Your task to perform on an android device: create a new album in the google photos Image 0: 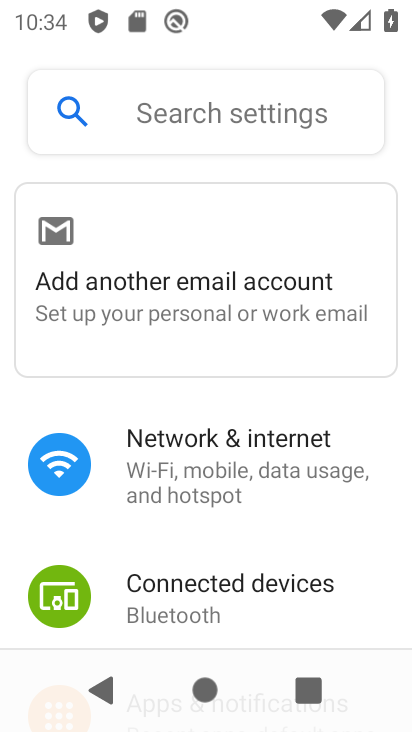
Step 0: press home button
Your task to perform on an android device: create a new album in the google photos Image 1: 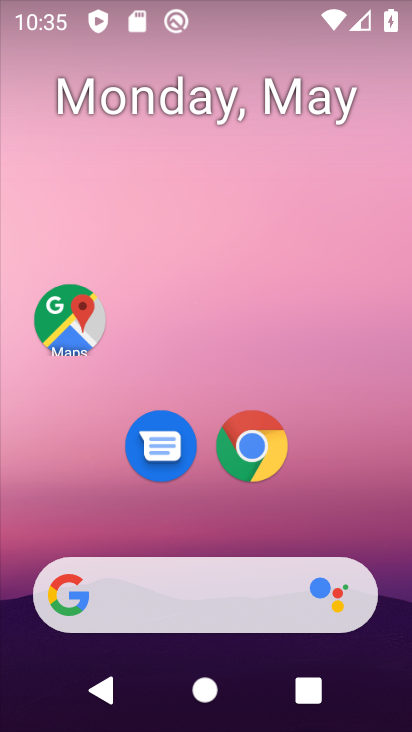
Step 1: drag from (394, 465) to (409, 203)
Your task to perform on an android device: create a new album in the google photos Image 2: 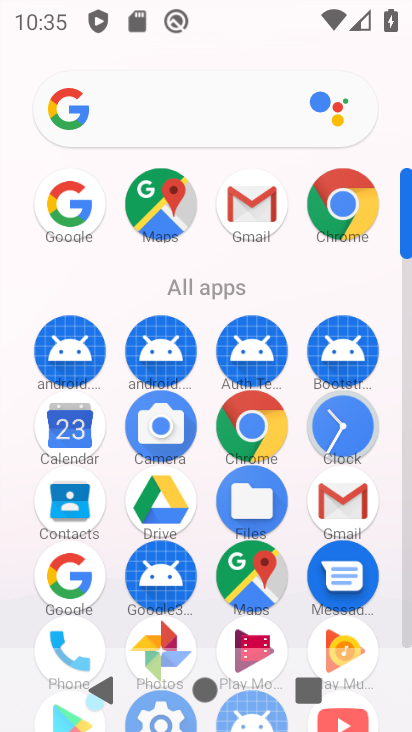
Step 2: drag from (401, 545) to (393, 106)
Your task to perform on an android device: create a new album in the google photos Image 3: 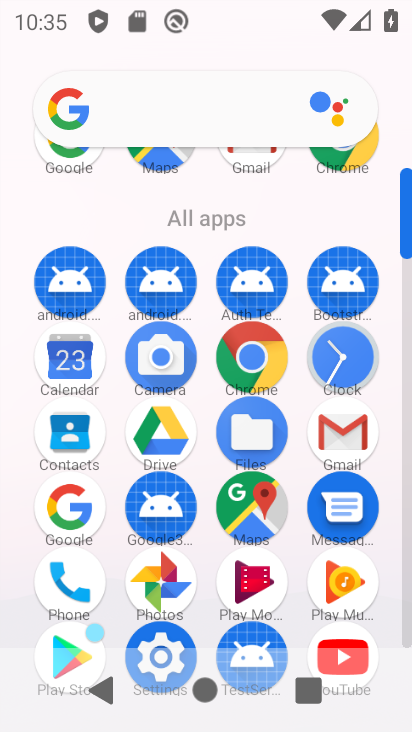
Step 3: click (156, 567)
Your task to perform on an android device: create a new album in the google photos Image 4: 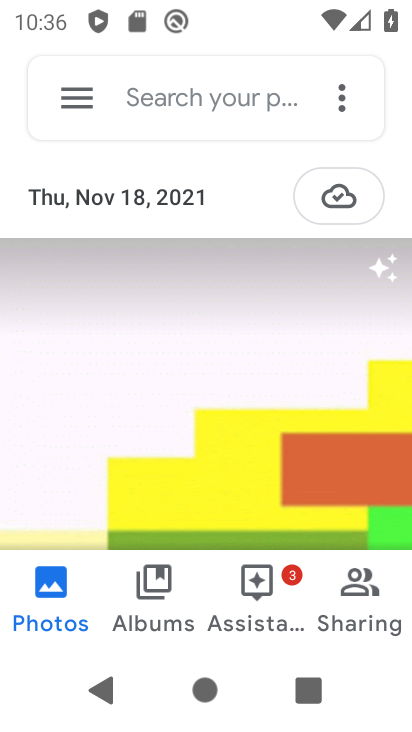
Step 4: click (165, 594)
Your task to perform on an android device: create a new album in the google photos Image 5: 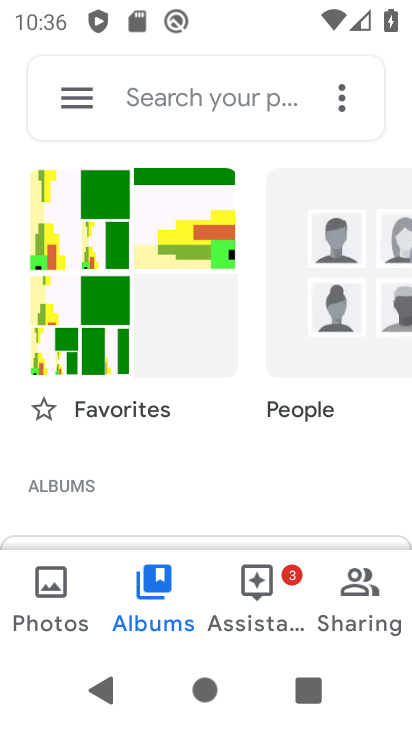
Step 5: drag from (177, 492) to (173, 29)
Your task to perform on an android device: create a new album in the google photos Image 6: 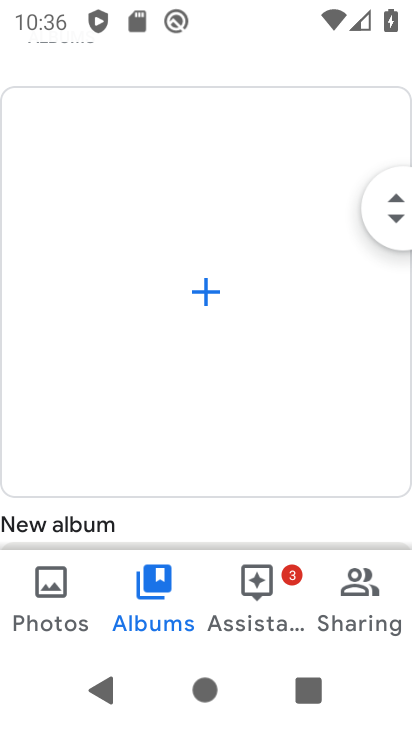
Step 6: click (205, 294)
Your task to perform on an android device: create a new album in the google photos Image 7: 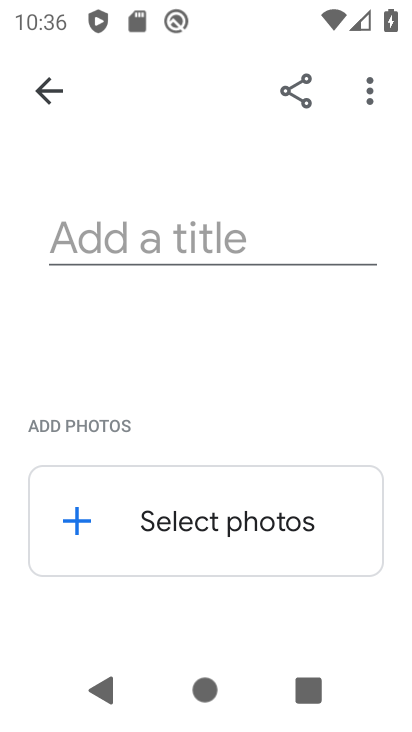
Step 7: click (181, 229)
Your task to perform on an android device: create a new album in the google photos Image 8: 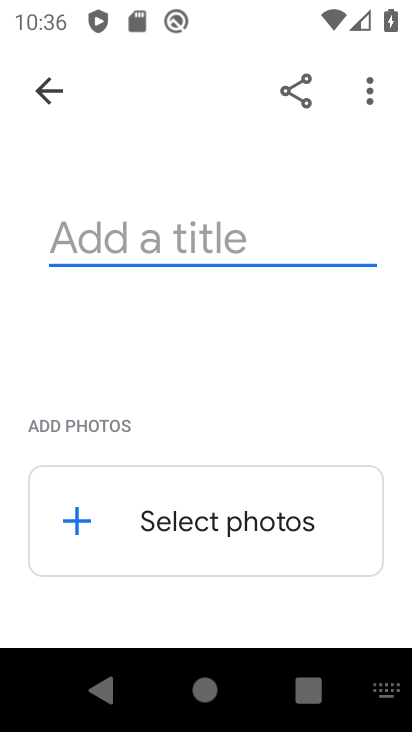
Step 8: click (275, 529)
Your task to perform on an android device: create a new album in the google photos Image 9: 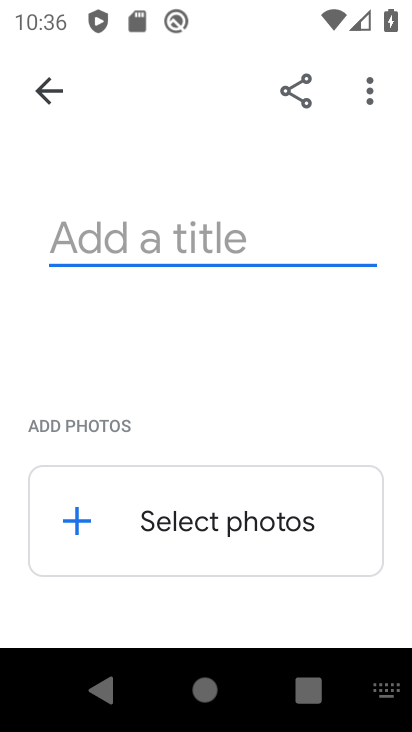
Step 9: type "yygf"
Your task to perform on an android device: create a new album in the google photos Image 10: 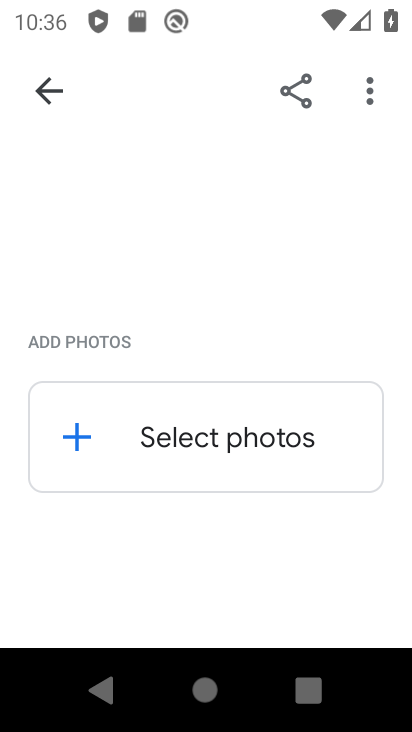
Step 10: click (275, 528)
Your task to perform on an android device: create a new album in the google photos Image 11: 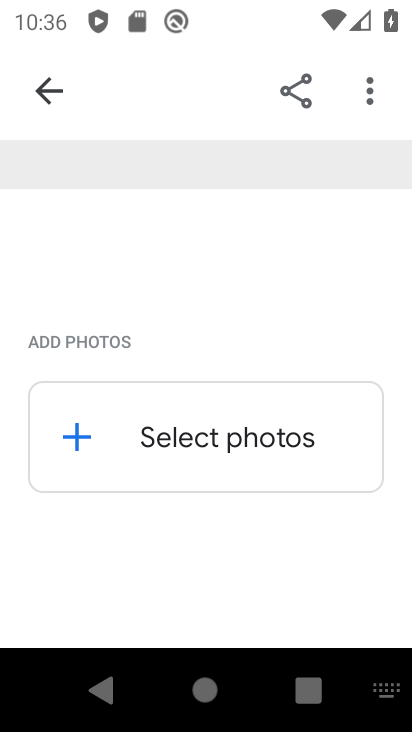
Step 11: click (259, 493)
Your task to perform on an android device: create a new album in the google photos Image 12: 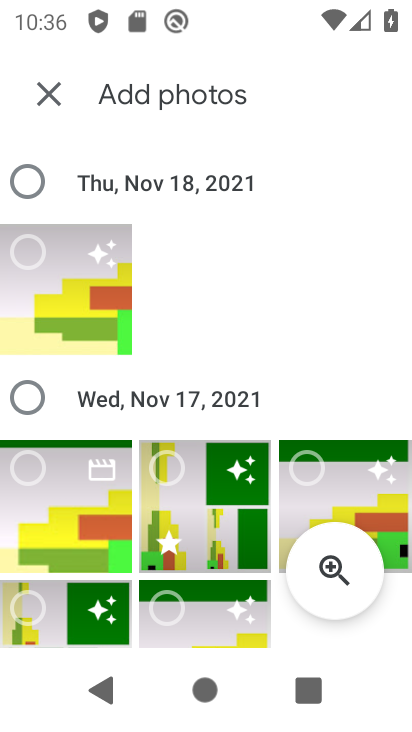
Step 12: click (253, 467)
Your task to perform on an android device: create a new album in the google photos Image 13: 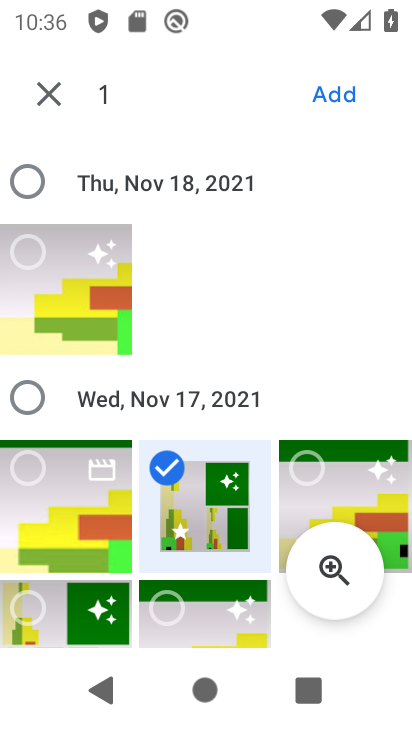
Step 13: click (253, 467)
Your task to perform on an android device: create a new album in the google photos Image 14: 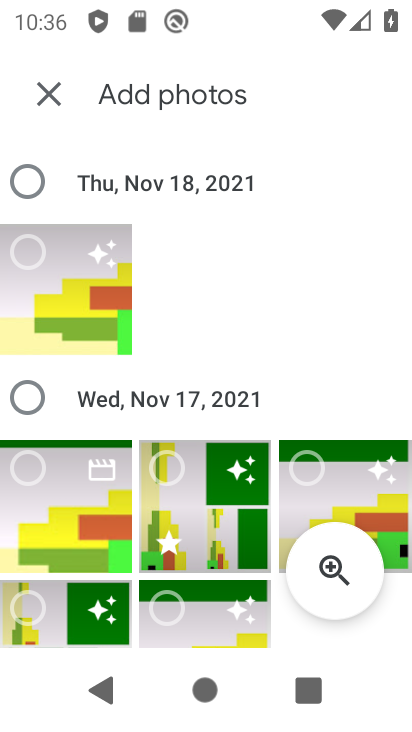
Step 14: click (188, 479)
Your task to perform on an android device: create a new album in the google photos Image 15: 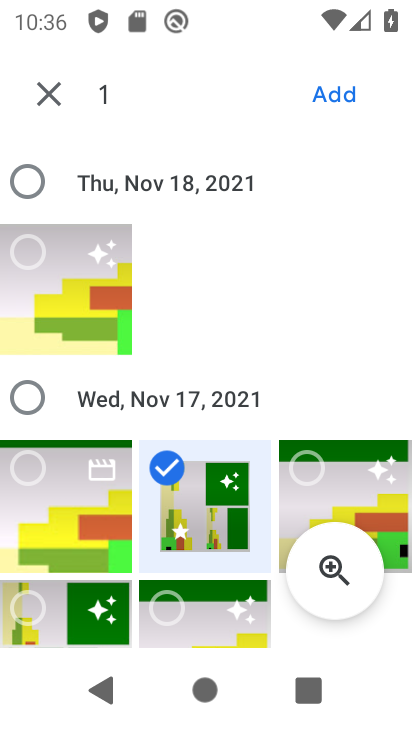
Step 15: click (58, 269)
Your task to perform on an android device: create a new album in the google photos Image 16: 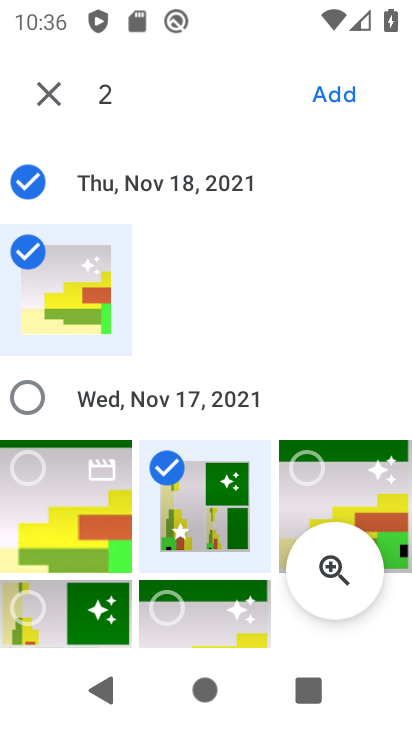
Step 16: click (47, 257)
Your task to perform on an android device: create a new album in the google photos Image 17: 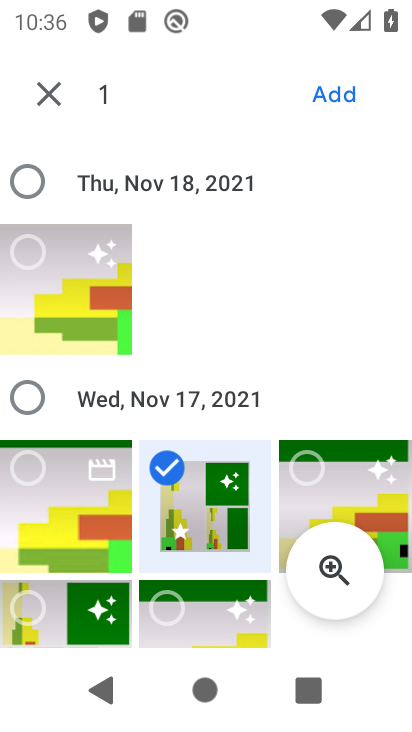
Step 17: click (37, 466)
Your task to perform on an android device: create a new album in the google photos Image 18: 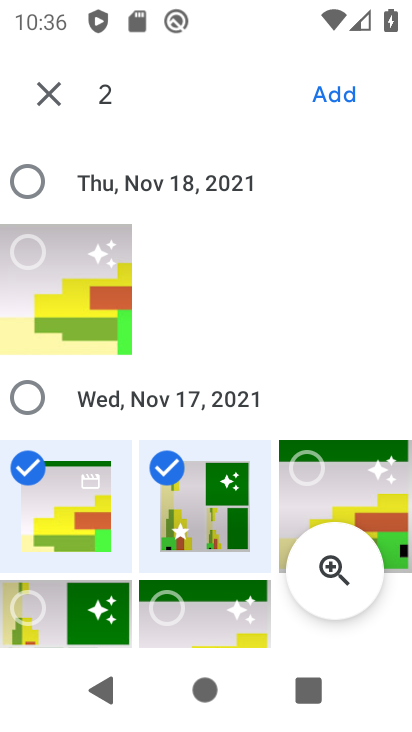
Step 18: click (323, 104)
Your task to perform on an android device: create a new album in the google photos Image 19: 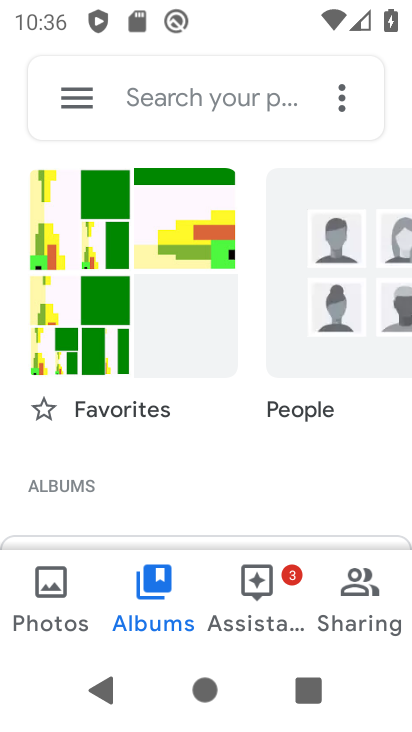
Step 19: task complete